Your task to perform on an android device: delete the emails in spam in the gmail app Image 0: 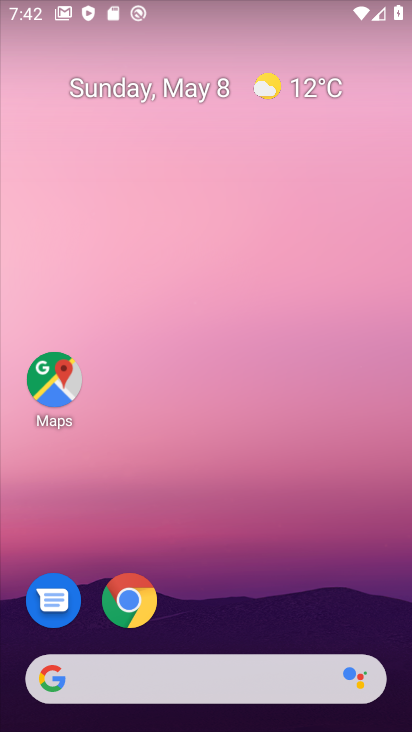
Step 0: drag from (194, 625) to (196, 223)
Your task to perform on an android device: delete the emails in spam in the gmail app Image 1: 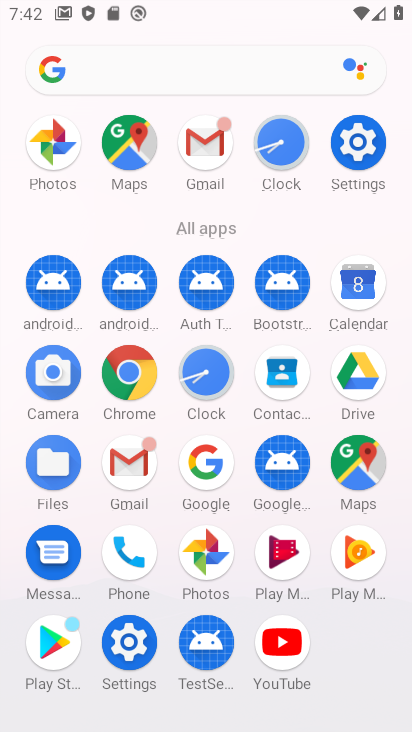
Step 1: click (209, 150)
Your task to perform on an android device: delete the emails in spam in the gmail app Image 2: 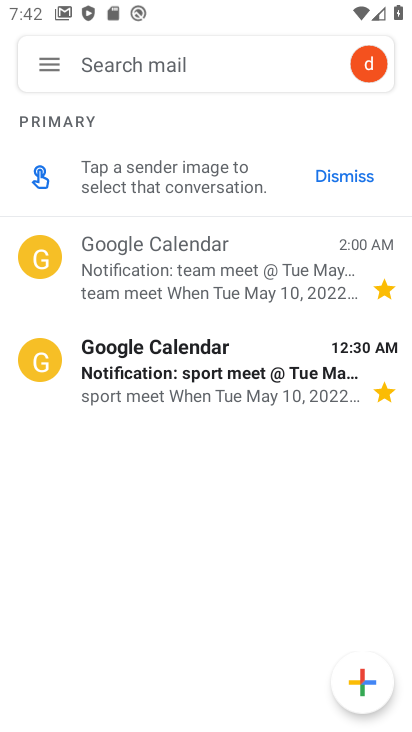
Step 2: click (37, 254)
Your task to perform on an android device: delete the emails in spam in the gmail app Image 3: 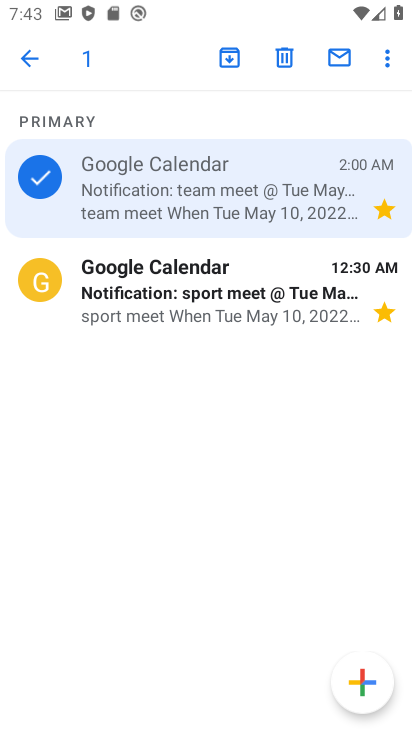
Step 3: click (44, 64)
Your task to perform on an android device: delete the emails in spam in the gmail app Image 4: 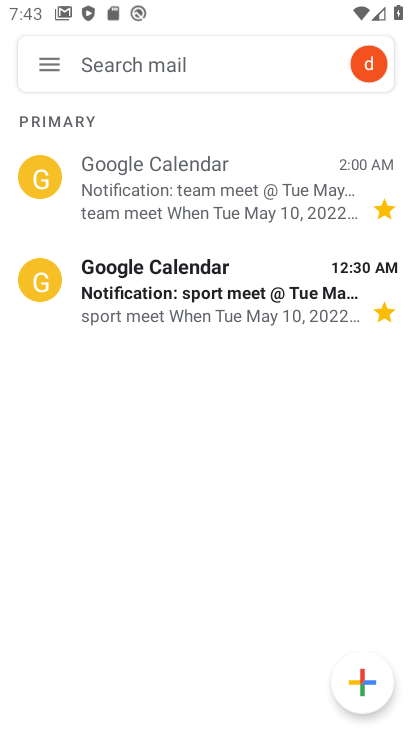
Step 4: click (44, 64)
Your task to perform on an android device: delete the emails in spam in the gmail app Image 5: 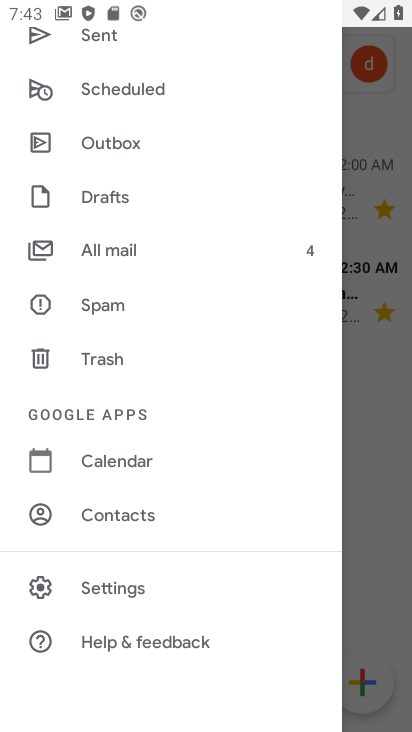
Step 5: click (129, 300)
Your task to perform on an android device: delete the emails in spam in the gmail app Image 6: 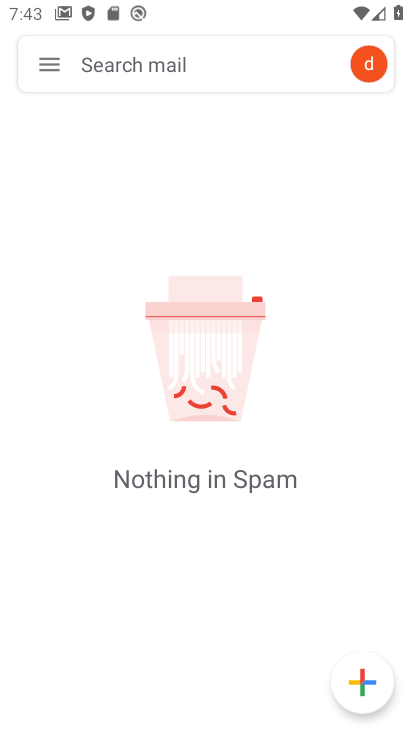
Step 6: task complete